Your task to perform on an android device: set the stopwatch Image 0: 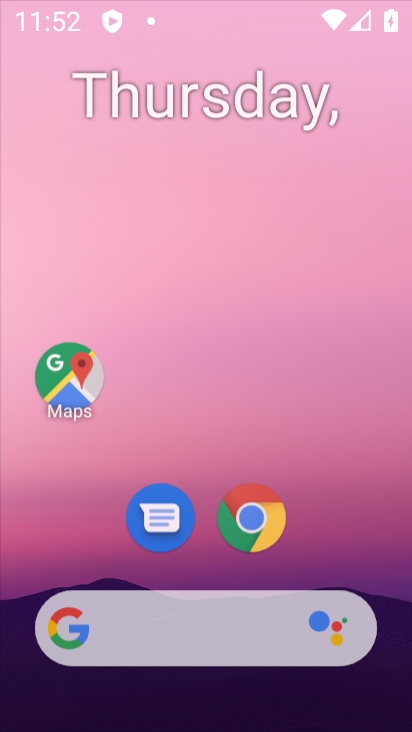
Step 0: click (304, 374)
Your task to perform on an android device: set the stopwatch Image 1: 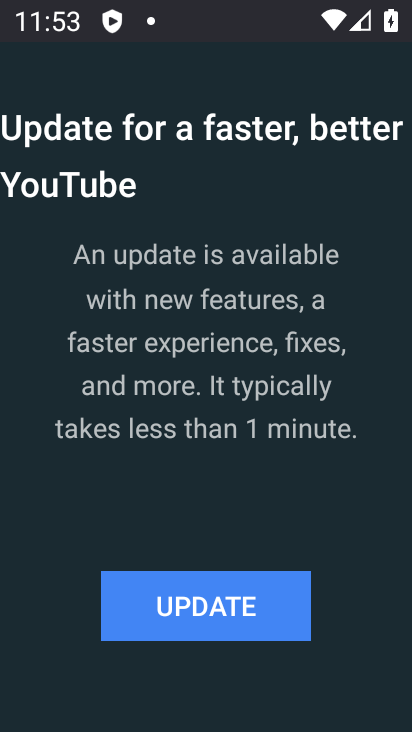
Step 1: press home button
Your task to perform on an android device: set the stopwatch Image 2: 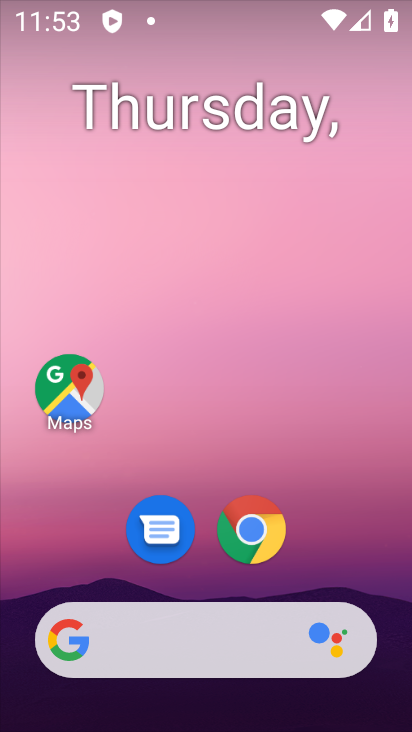
Step 2: drag from (205, 577) to (254, 18)
Your task to perform on an android device: set the stopwatch Image 3: 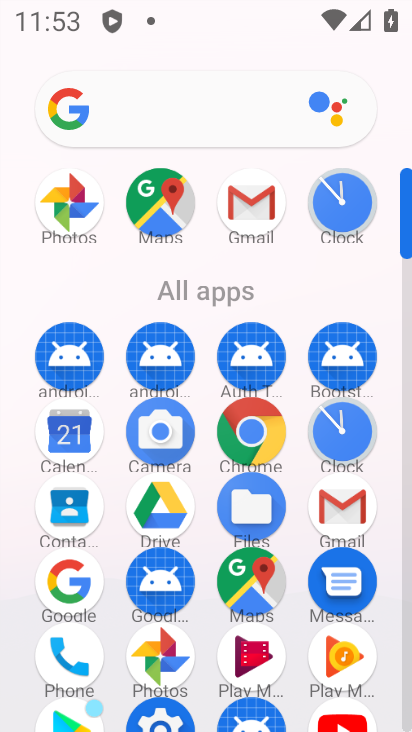
Step 3: click (342, 426)
Your task to perform on an android device: set the stopwatch Image 4: 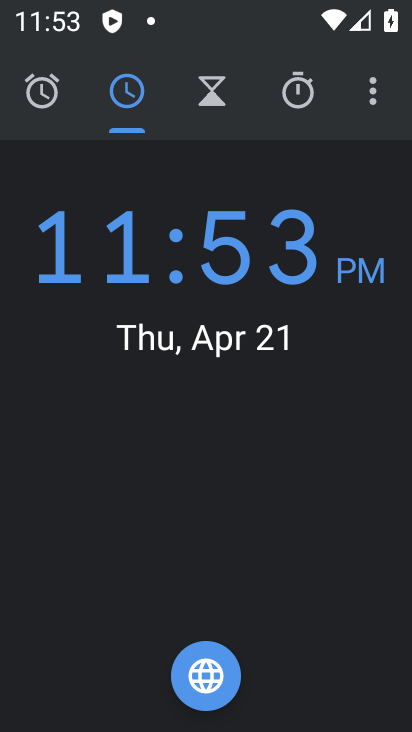
Step 4: click (296, 92)
Your task to perform on an android device: set the stopwatch Image 5: 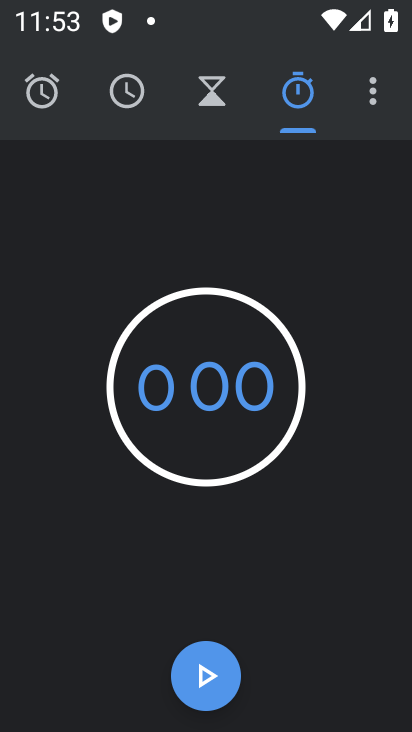
Step 5: click (203, 672)
Your task to perform on an android device: set the stopwatch Image 6: 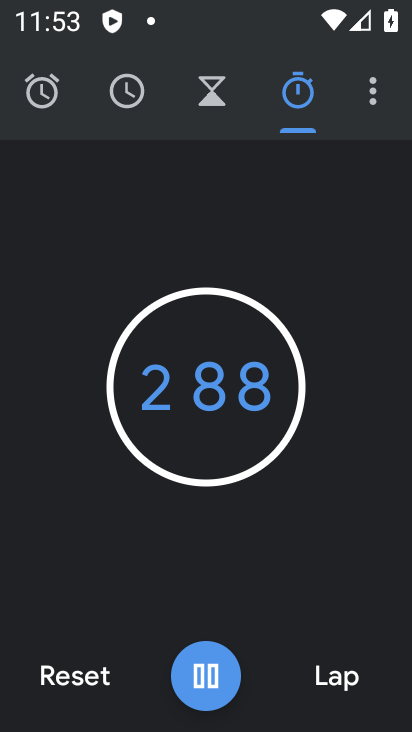
Step 6: task complete